Your task to perform on an android device: turn off picture-in-picture Image 0: 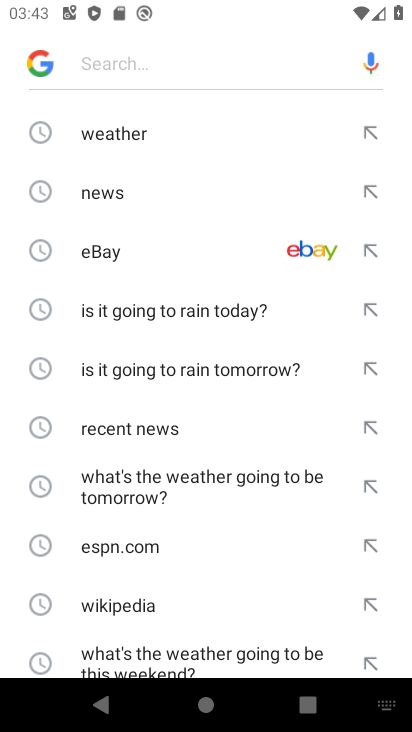
Step 0: press back button
Your task to perform on an android device: turn off picture-in-picture Image 1: 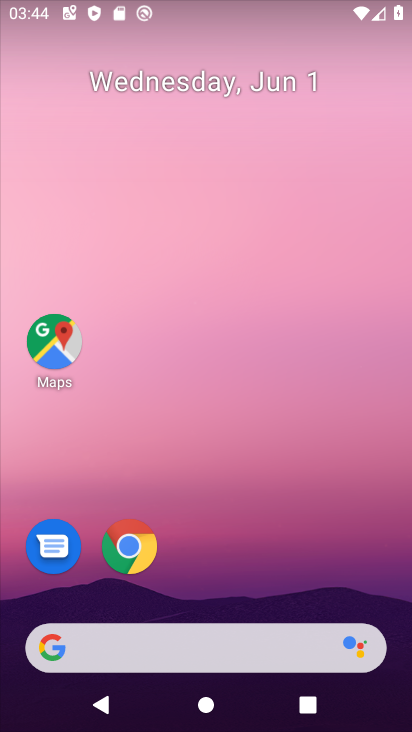
Step 1: click (121, 552)
Your task to perform on an android device: turn off picture-in-picture Image 2: 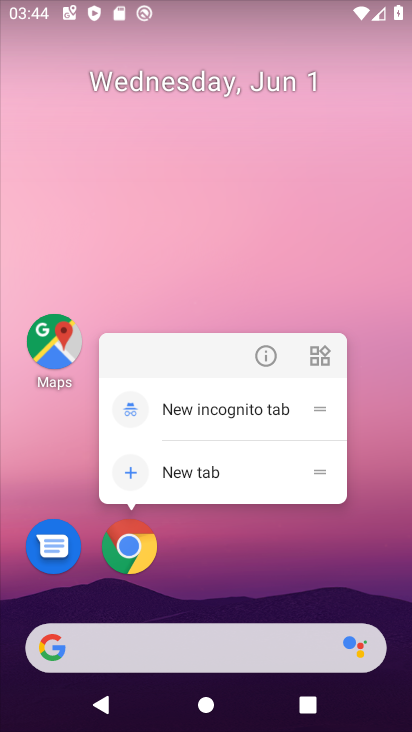
Step 2: click (262, 359)
Your task to perform on an android device: turn off picture-in-picture Image 3: 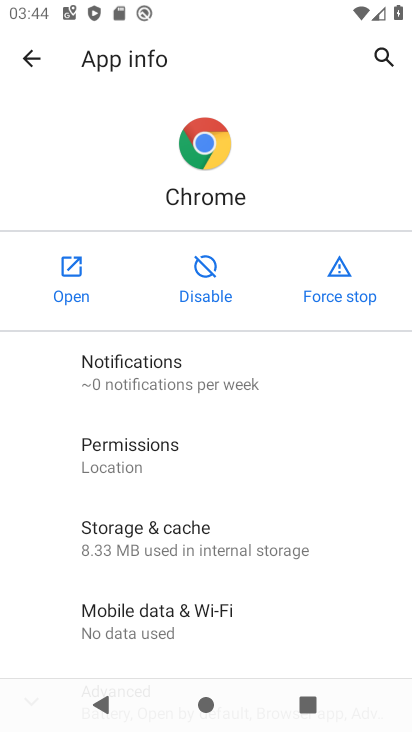
Step 3: drag from (256, 572) to (228, 119)
Your task to perform on an android device: turn off picture-in-picture Image 4: 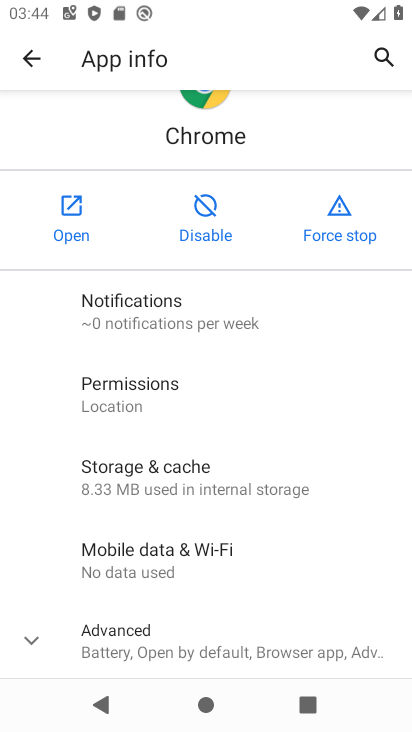
Step 4: click (210, 626)
Your task to perform on an android device: turn off picture-in-picture Image 5: 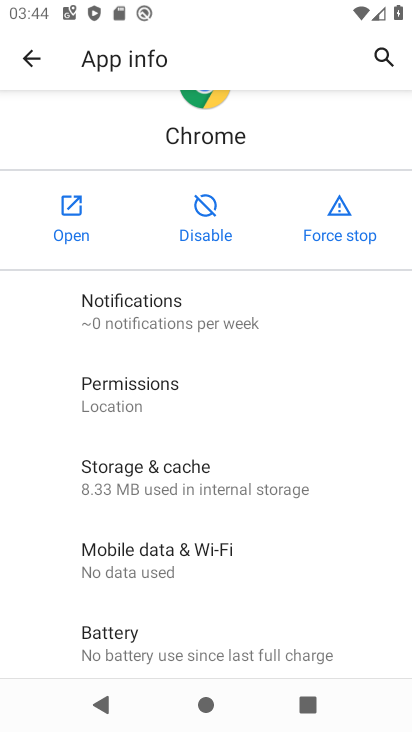
Step 5: drag from (289, 562) to (239, 336)
Your task to perform on an android device: turn off picture-in-picture Image 6: 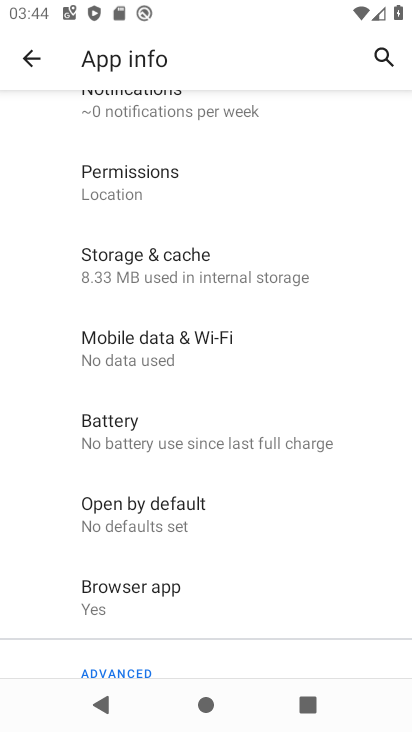
Step 6: drag from (239, 546) to (208, 314)
Your task to perform on an android device: turn off picture-in-picture Image 7: 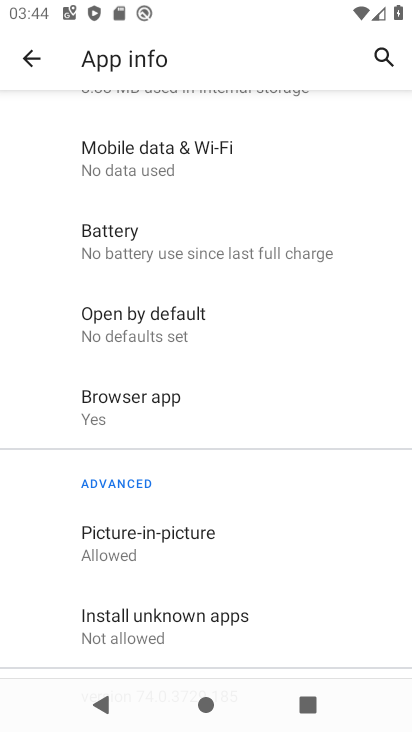
Step 7: click (217, 552)
Your task to perform on an android device: turn off picture-in-picture Image 8: 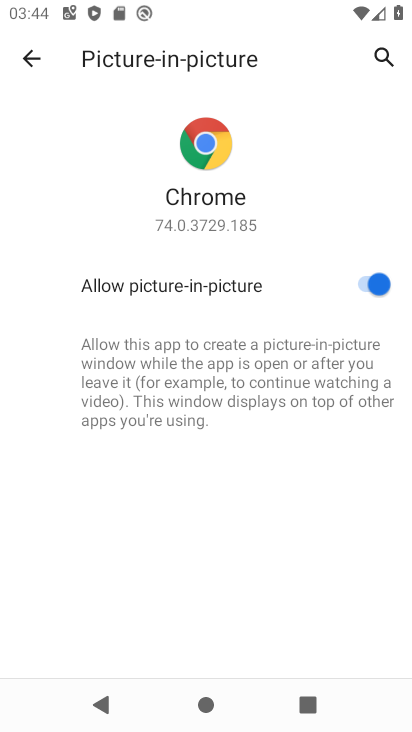
Step 8: click (375, 273)
Your task to perform on an android device: turn off picture-in-picture Image 9: 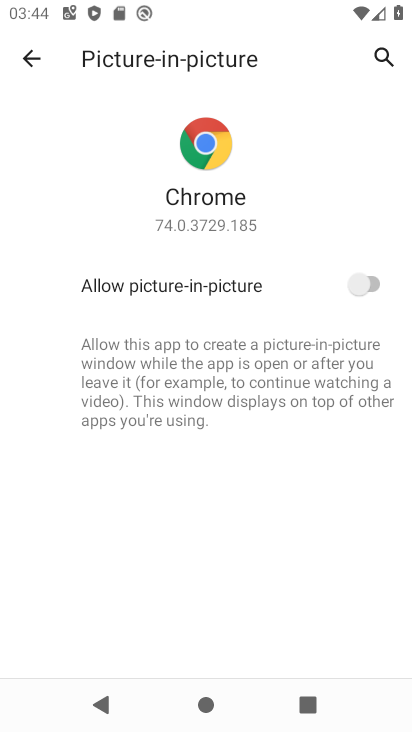
Step 9: task complete